Your task to perform on an android device: Show me popular games on the Play Store Image 0: 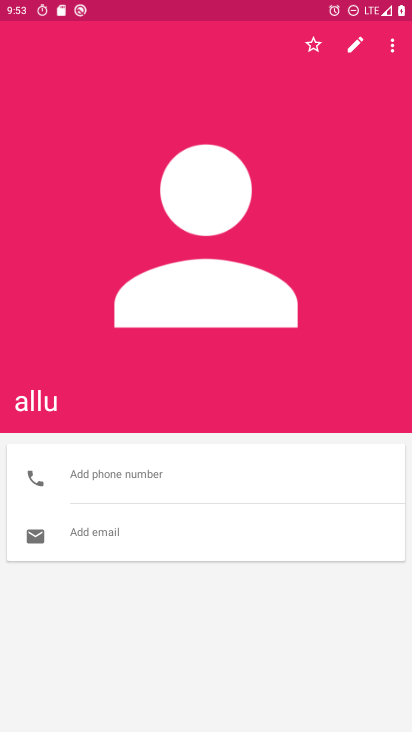
Step 0: drag from (397, 659) to (349, 285)
Your task to perform on an android device: Show me popular games on the Play Store Image 1: 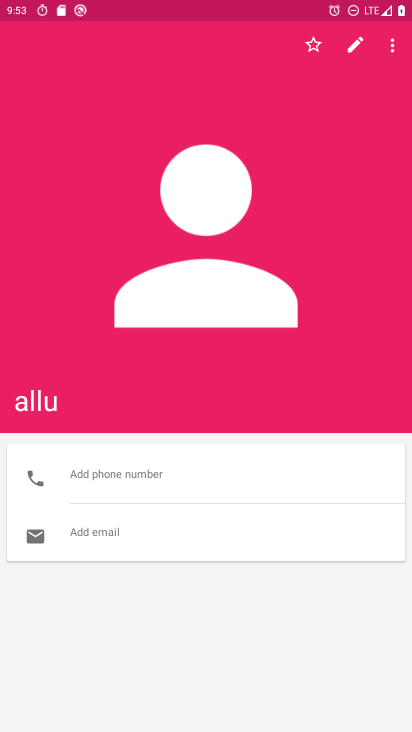
Step 1: press home button
Your task to perform on an android device: Show me popular games on the Play Store Image 2: 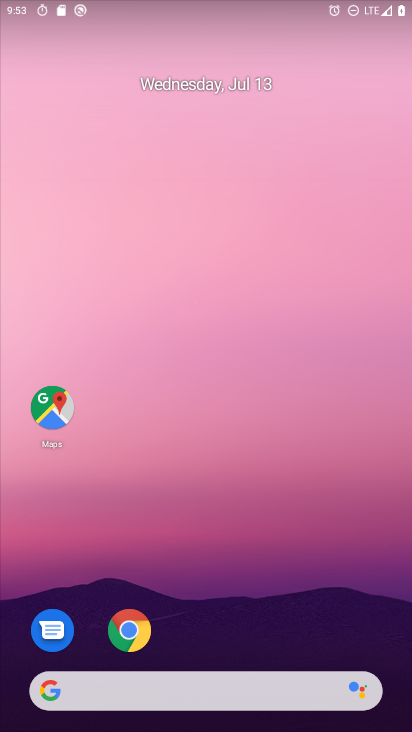
Step 2: drag from (397, 682) to (198, 58)
Your task to perform on an android device: Show me popular games on the Play Store Image 3: 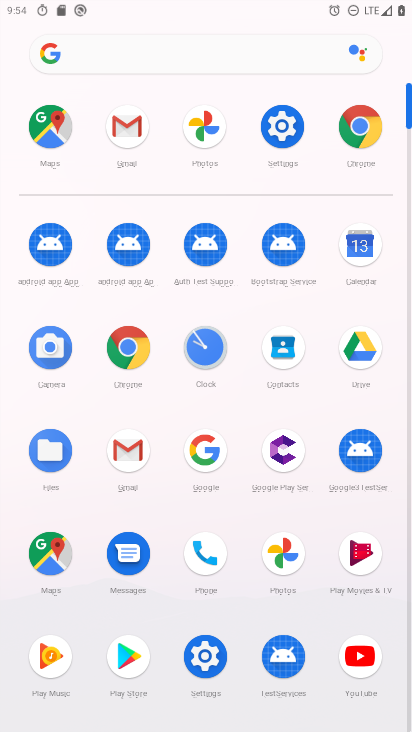
Step 3: click (130, 674)
Your task to perform on an android device: Show me popular games on the Play Store Image 4: 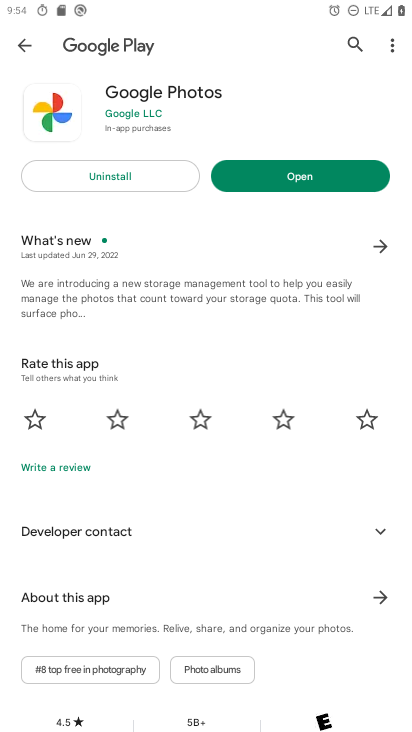
Step 4: press back button
Your task to perform on an android device: Show me popular games on the Play Store Image 5: 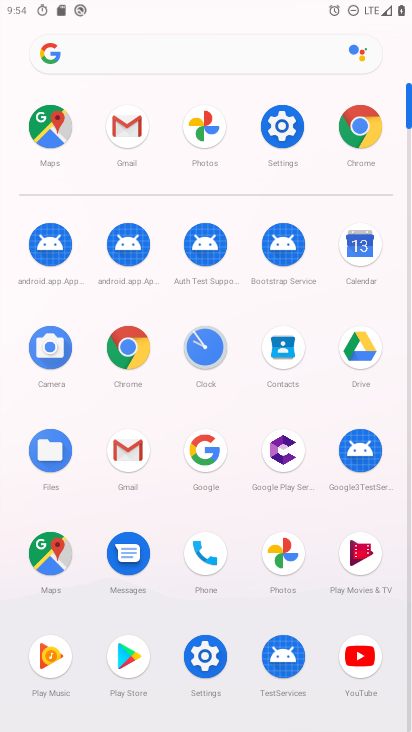
Step 5: click (135, 663)
Your task to perform on an android device: Show me popular games on the Play Store Image 6: 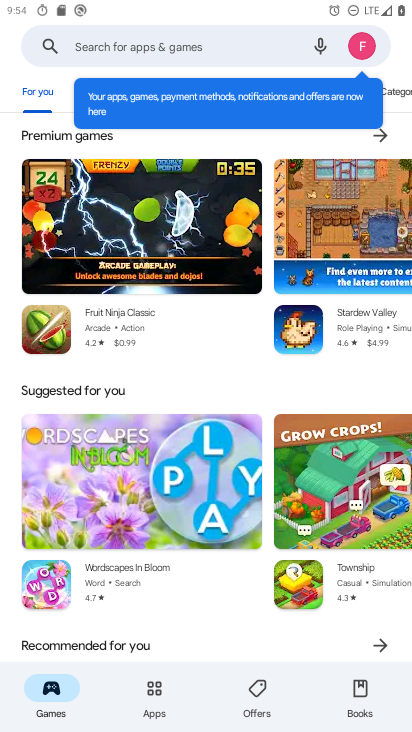
Step 6: task complete